Your task to perform on an android device: Set the phone to "Do not disturb". Image 0: 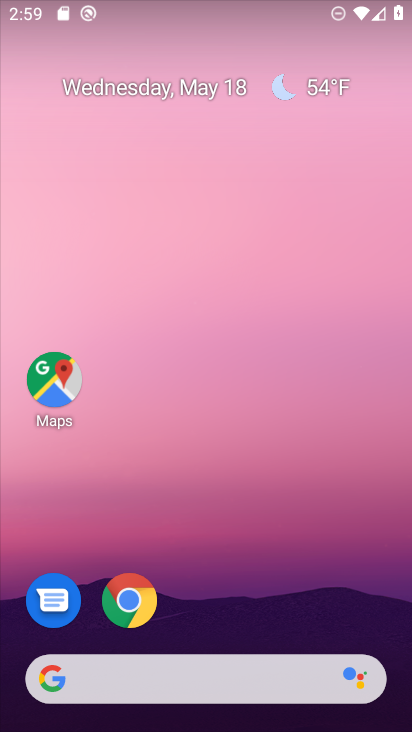
Step 0: drag from (214, 637) to (336, 17)
Your task to perform on an android device: Set the phone to "Do not disturb". Image 1: 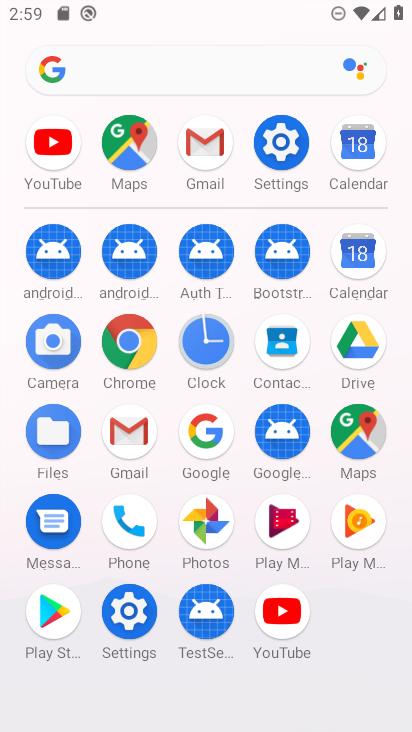
Step 1: click (138, 621)
Your task to perform on an android device: Set the phone to "Do not disturb". Image 2: 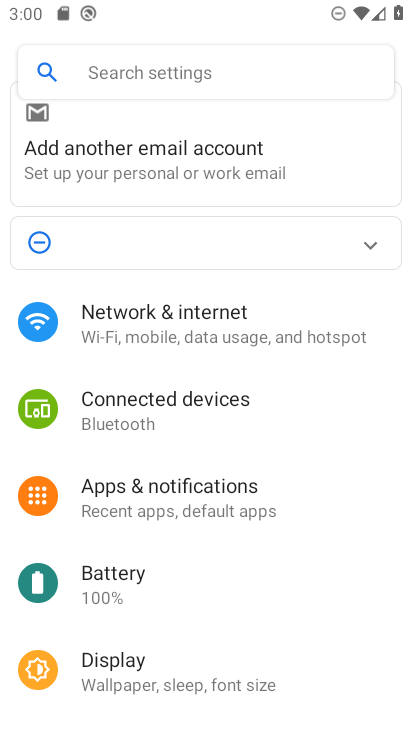
Step 2: drag from (128, 643) to (202, 359)
Your task to perform on an android device: Set the phone to "Do not disturb". Image 3: 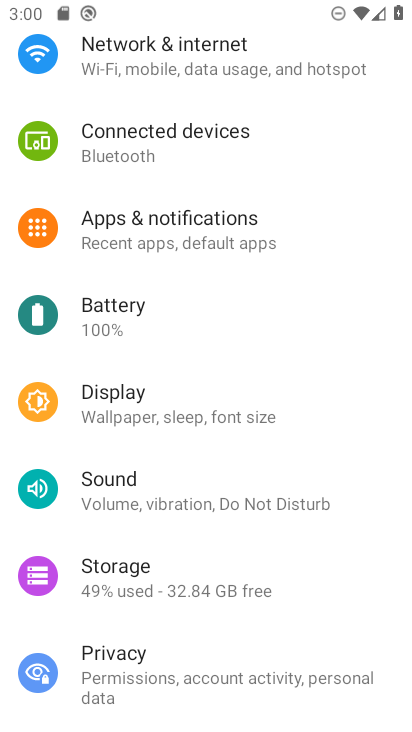
Step 3: click (173, 501)
Your task to perform on an android device: Set the phone to "Do not disturb". Image 4: 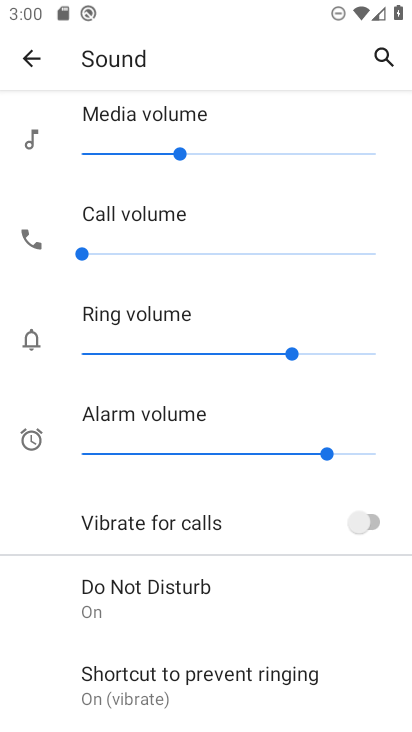
Step 4: task complete